Your task to perform on an android device: Open privacy settings Image 0: 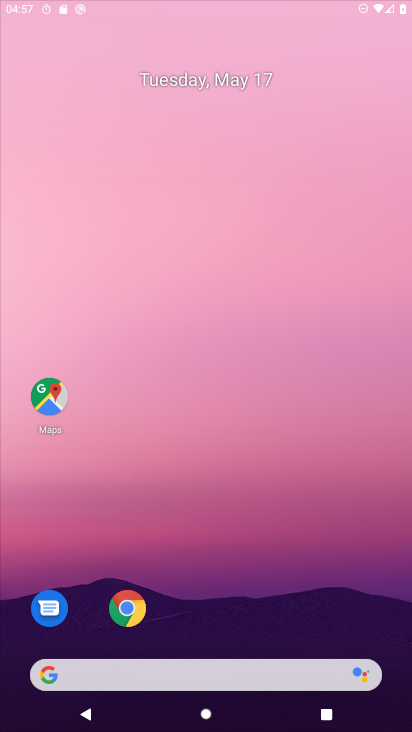
Step 0: click (176, 329)
Your task to perform on an android device: Open privacy settings Image 1: 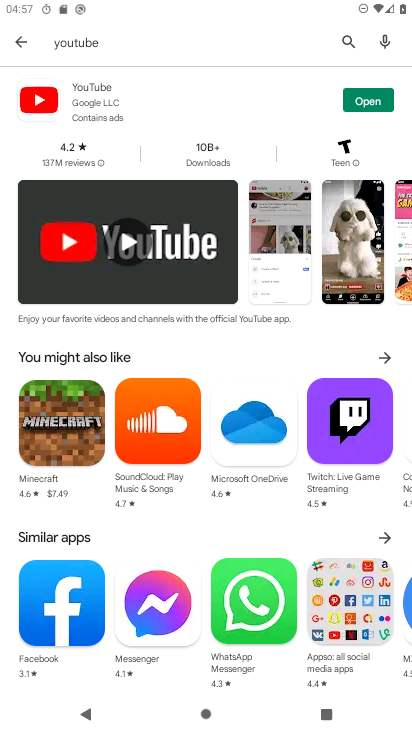
Step 1: press home button
Your task to perform on an android device: Open privacy settings Image 2: 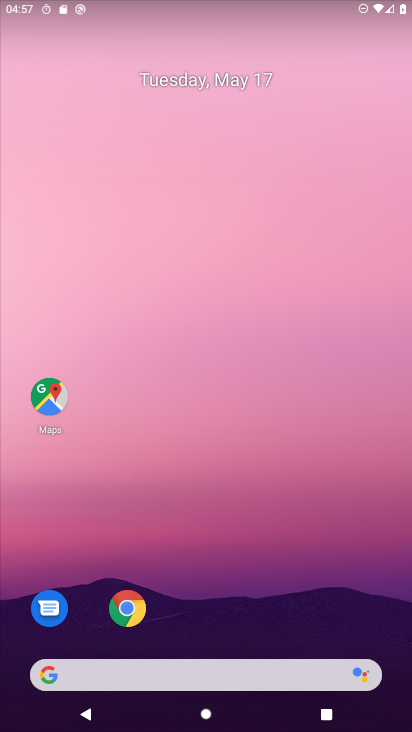
Step 2: drag from (117, 664) to (208, 306)
Your task to perform on an android device: Open privacy settings Image 3: 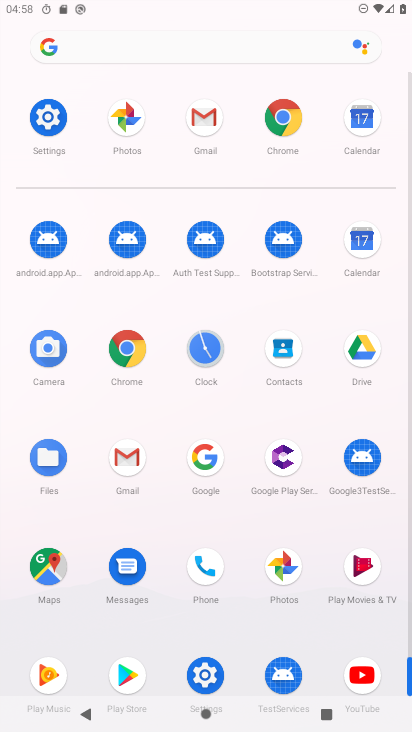
Step 3: click (58, 122)
Your task to perform on an android device: Open privacy settings Image 4: 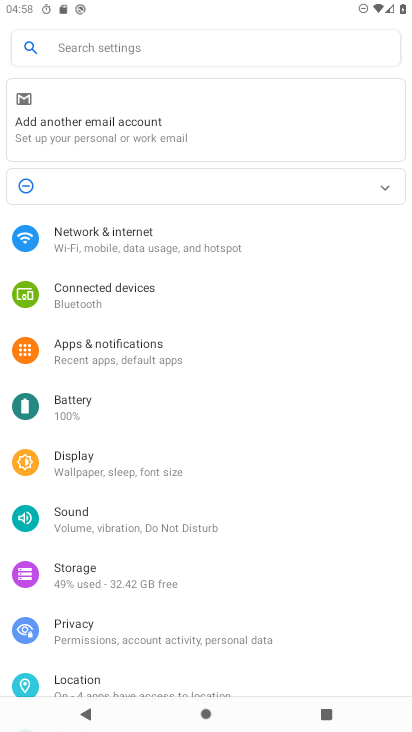
Step 4: click (81, 620)
Your task to perform on an android device: Open privacy settings Image 5: 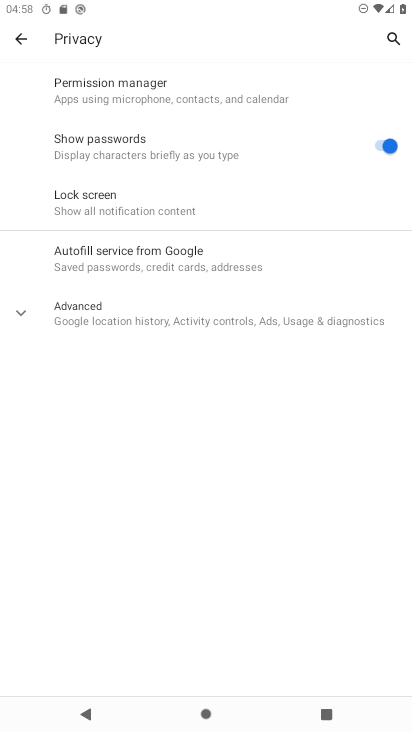
Step 5: click (109, 312)
Your task to perform on an android device: Open privacy settings Image 6: 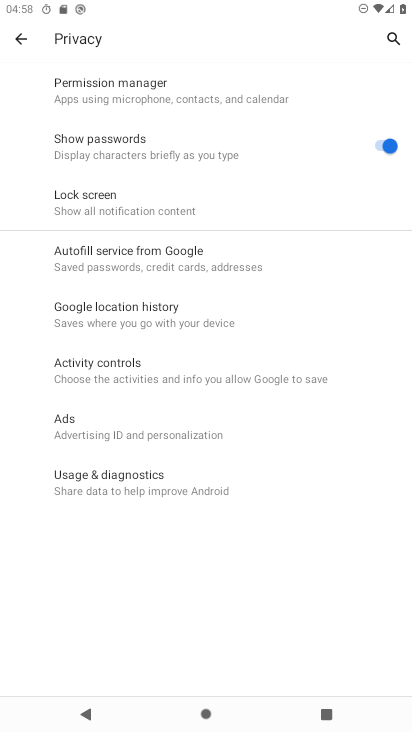
Step 6: task complete